Your task to perform on an android device: Open network settings Image 0: 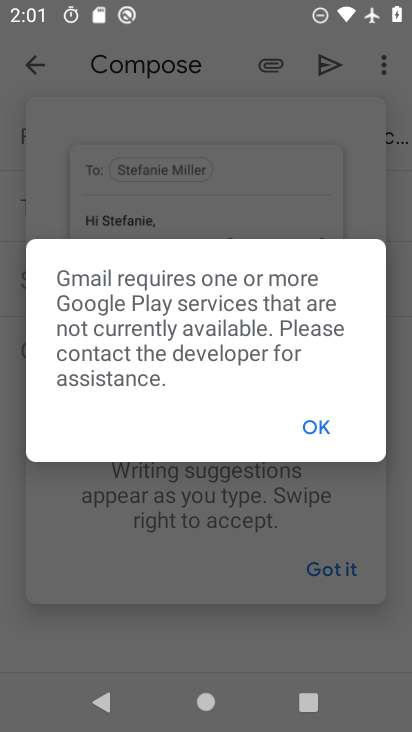
Step 0: press home button
Your task to perform on an android device: Open network settings Image 1: 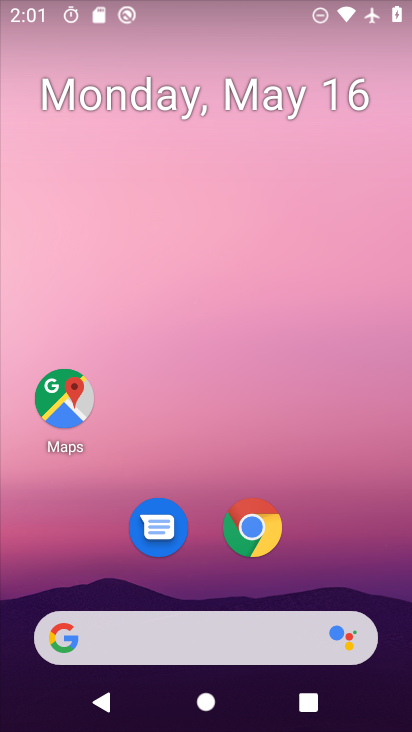
Step 1: drag from (180, 633) to (305, 154)
Your task to perform on an android device: Open network settings Image 2: 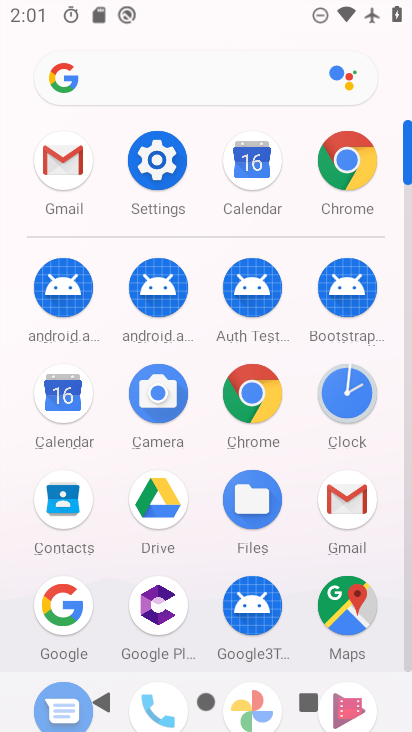
Step 2: click (156, 156)
Your task to perform on an android device: Open network settings Image 3: 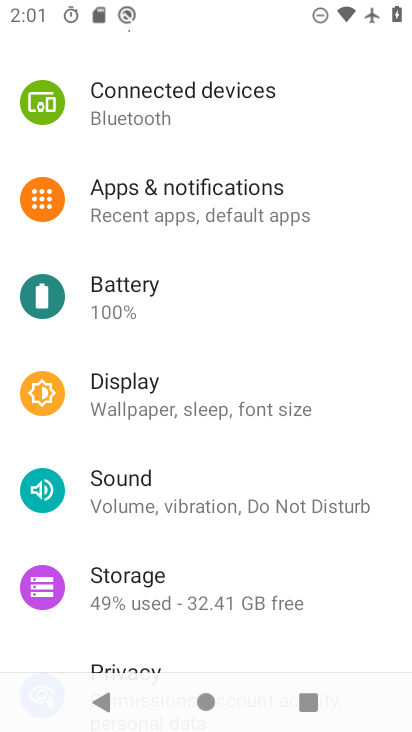
Step 3: drag from (298, 128) to (339, 490)
Your task to perform on an android device: Open network settings Image 4: 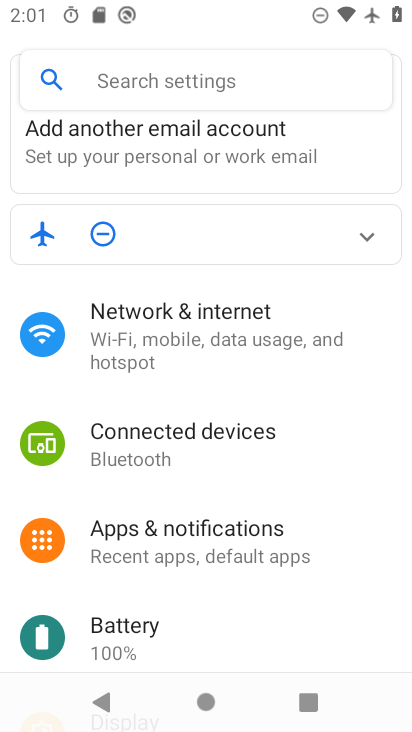
Step 4: click (216, 318)
Your task to perform on an android device: Open network settings Image 5: 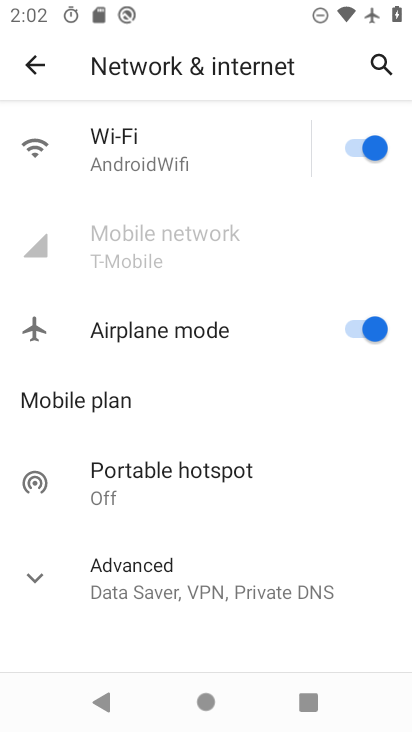
Step 5: task complete